Your task to perform on an android device: remove spam from my inbox in the gmail app Image 0: 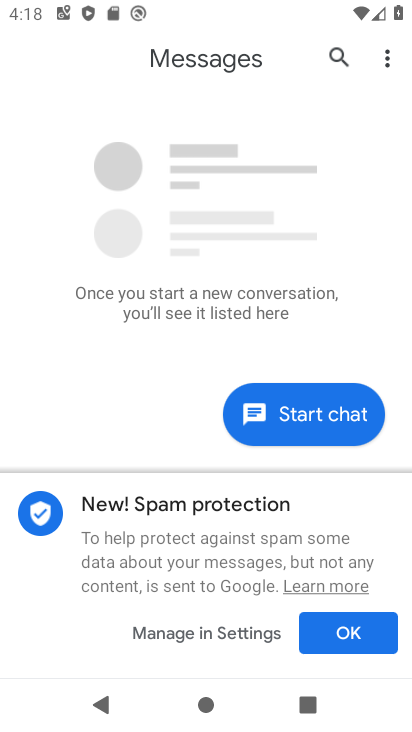
Step 0: press home button
Your task to perform on an android device: remove spam from my inbox in the gmail app Image 1: 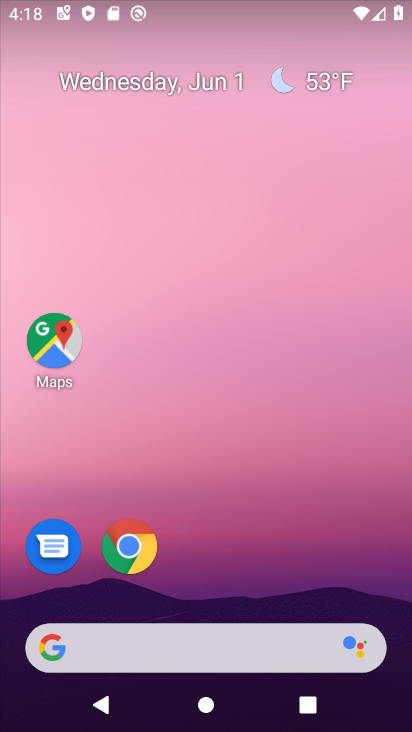
Step 1: drag from (275, 539) to (218, 30)
Your task to perform on an android device: remove spam from my inbox in the gmail app Image 2: 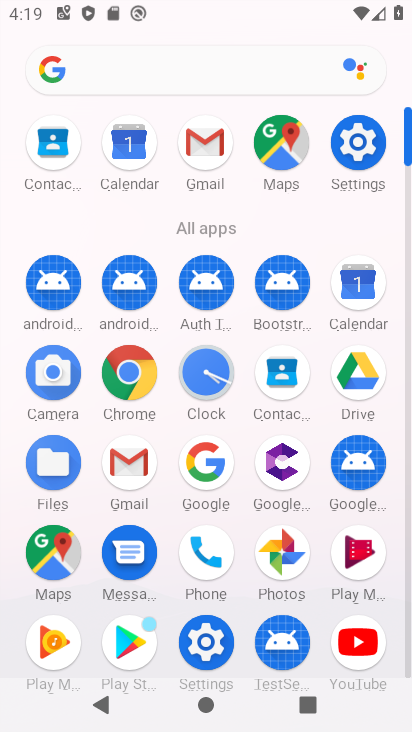
Step 2: click (210, 157)
Your task to perform on an android device: remove spam from my inbox in the gmail app Image 3: 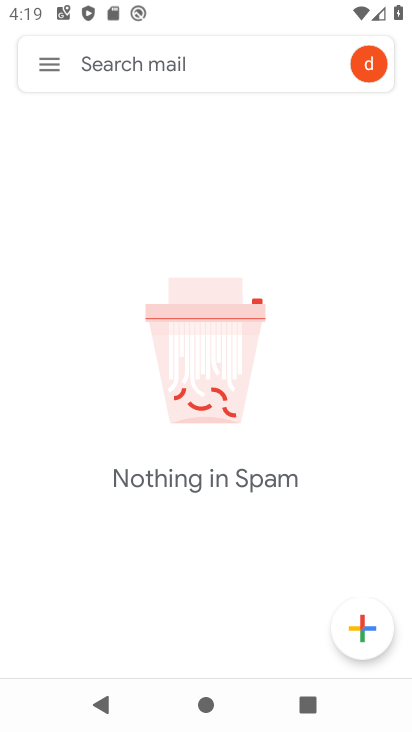
Step 3: click (36, 61)
Your task to perform on an android device: remove spam from my inbox in the gmail app Image 4: 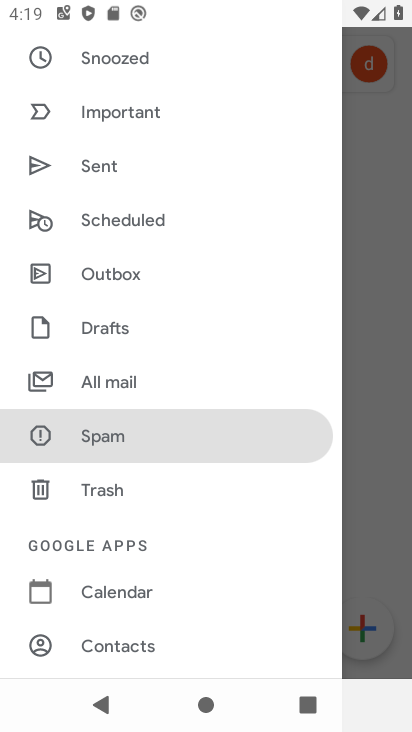
Step 4: click (118, 435)
Your task to perform on an android device: remove spam from my inbox in the gmail app Image 5: 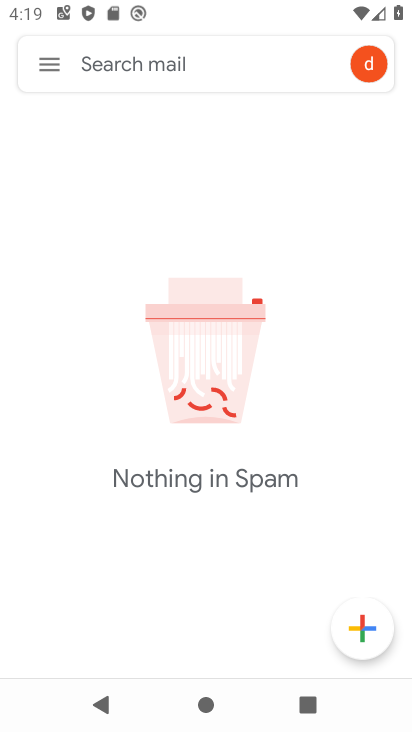
Step 5: task complete